Your task to perform on an android device: open device folders in google photos Image 0: 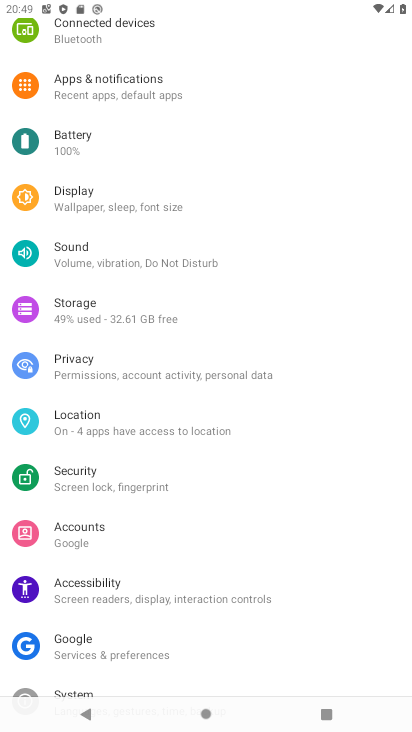
Step 0: press home button
Your task to perform on an android device: open device folders in google photos Image 1: 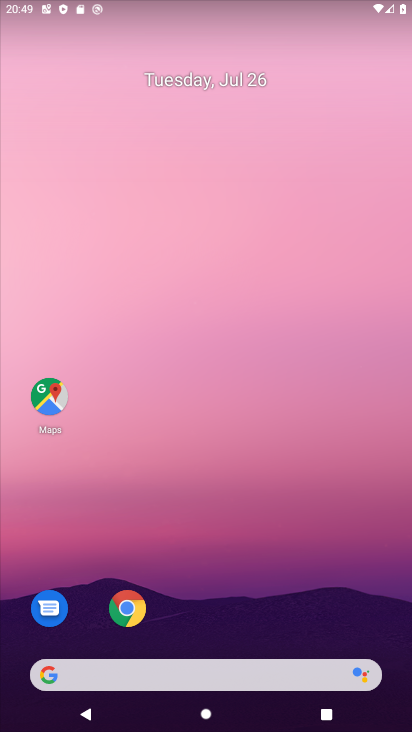
Step 1: drag from (28, 691) to (215, 193)
Your task to perform on an android device: open device folders in google photos Image 2: 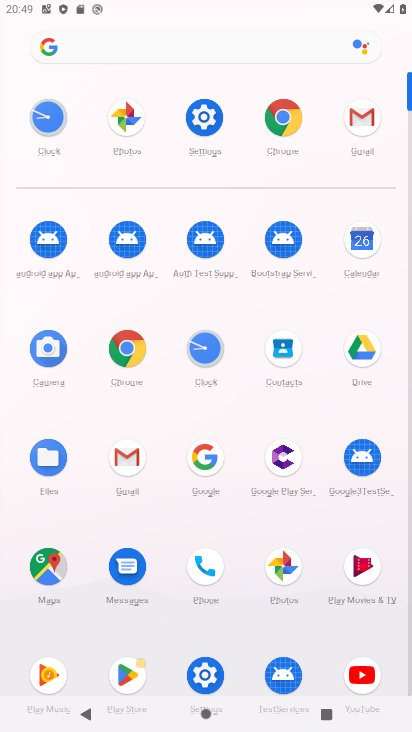
Step 2: click (293, 565)
Your task to perform on an android device: open device folders in google photos Image 3: 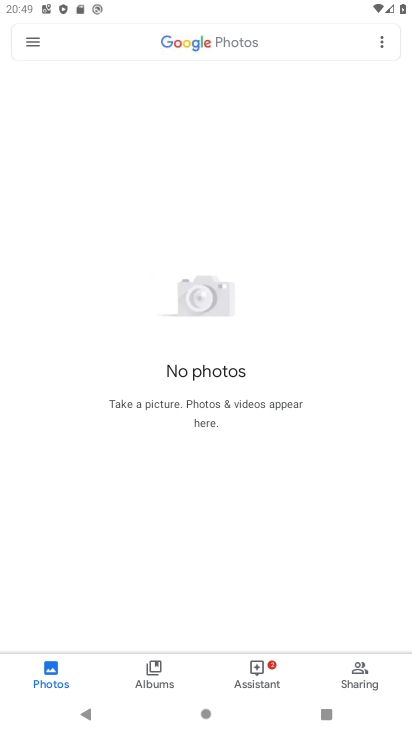
Step 3: click (20, 39)
Your task to perform on an android device: open device folders in google photos Image 4: 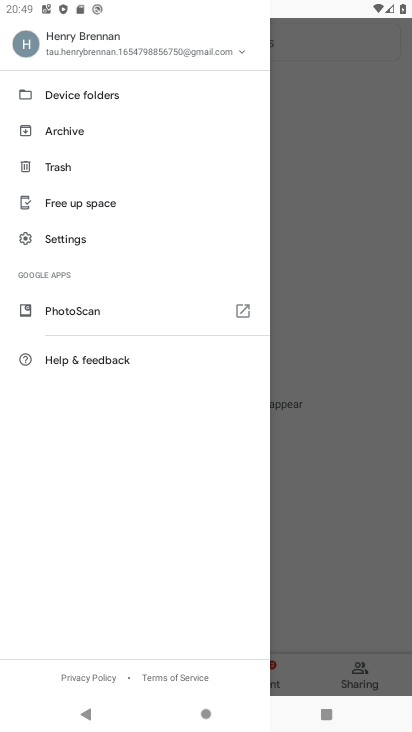
Step 4: click (71, 97)
Your task to perform on an android device: open device folders in google photos Image 5: 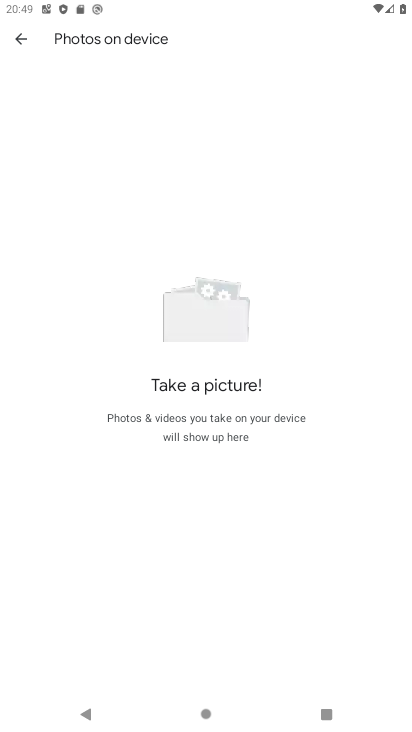
Step 5: task complete